Your task to perform on an android device: turn on improve location accuracy Image 0: 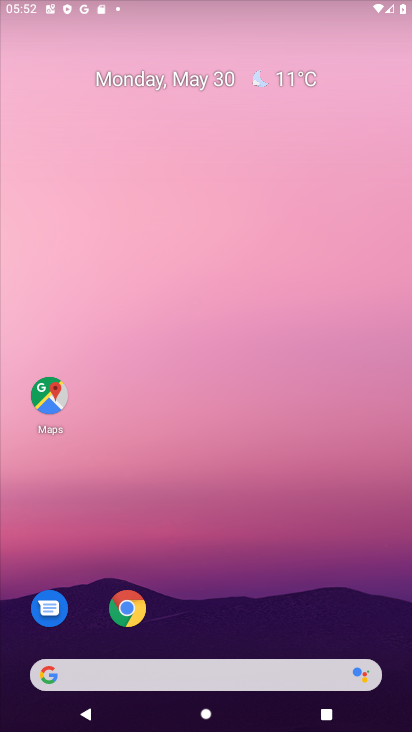
Step 0: drag from (163, 472) to (187, 344)
Your task to perform on an android device: turn on improve location accuracy Image 1: 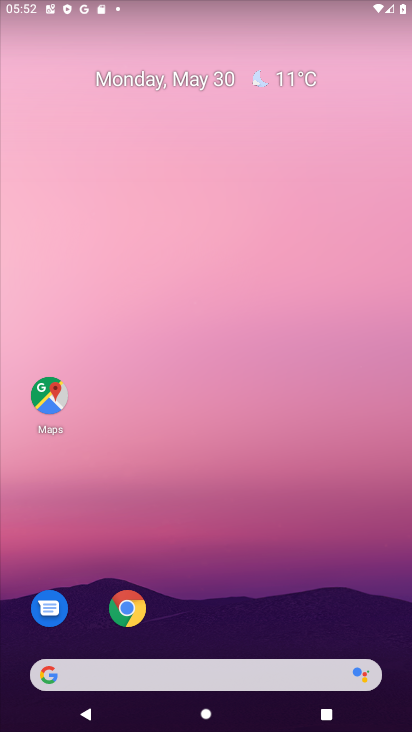
Step 1: drag from (295, 618) to (296, 253)
Your task to perform on an android device: turn on improve location accuracy Image 2: 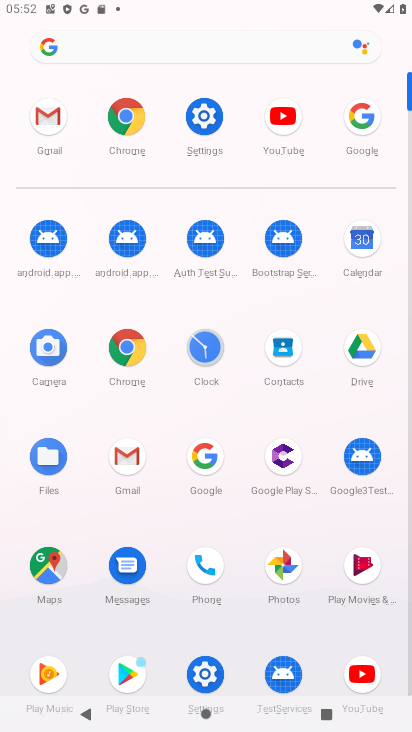
Step 2: click (212, 111)
Your task to perform on an android device: turn on improve location accuracy Image 3: 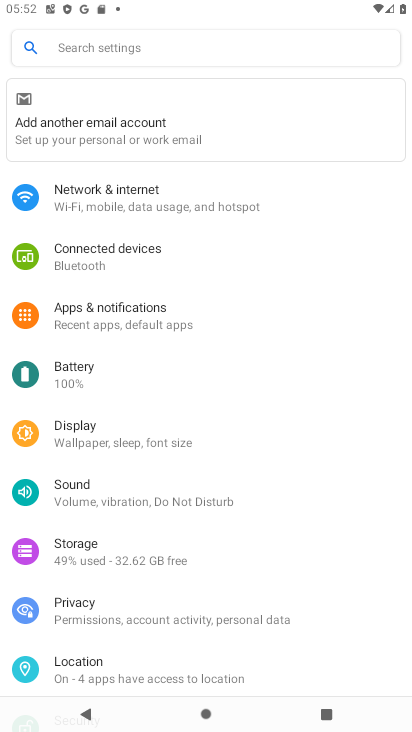
Step 3: click (122, 673)
Your task to perform on an android device: turn on improve location accuracy Image 4: 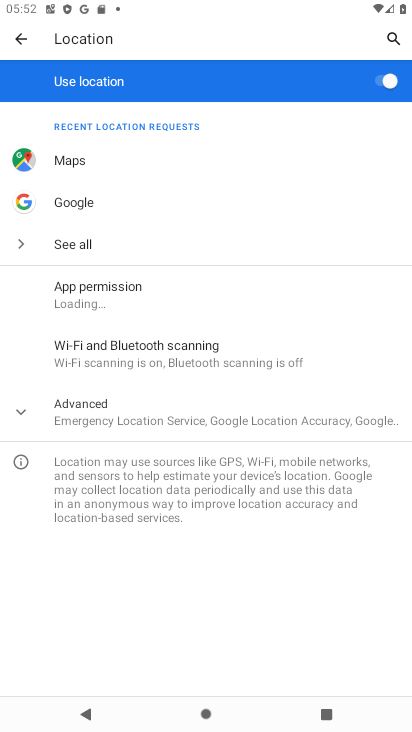
Step 4: click (131, 414)
Your task to perform on an android device: turn on improve location accuracy Image 5: 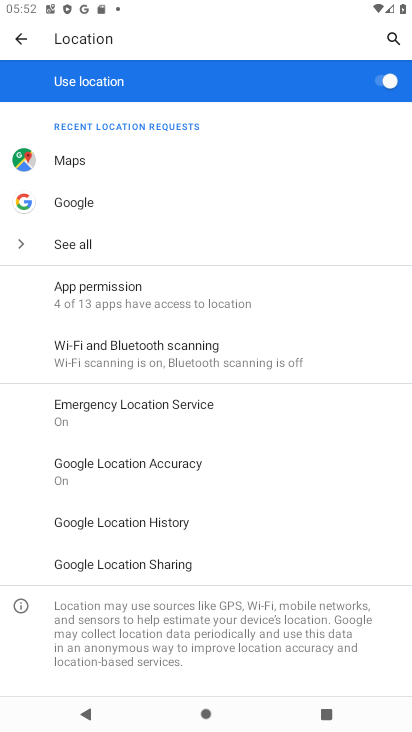
Step 5: click (168, 466)
Your task to perform on an android device: turn on improve location accuracy Image 6: 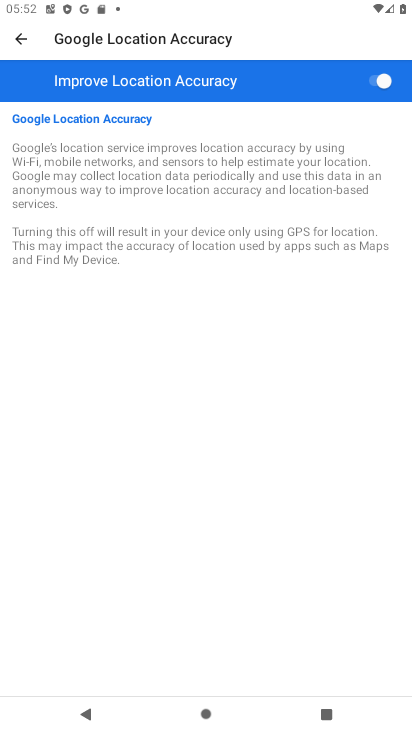
Step 6: task complete